Your task to perform on an android device: Go to location settings Image 0: 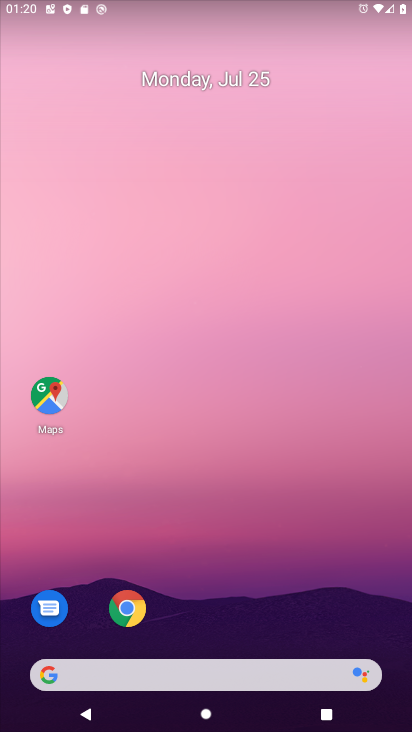
Step 0: drag from (226, 671) to (235, 113)
Your task to perform on an android device: Go to location settings Image 1: 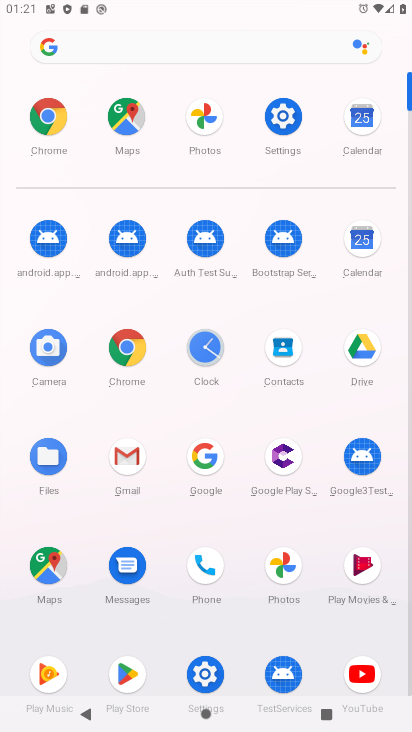
Step 1: click (269, 129)
Your task to perform on an android device: Go to location settings Image 2: 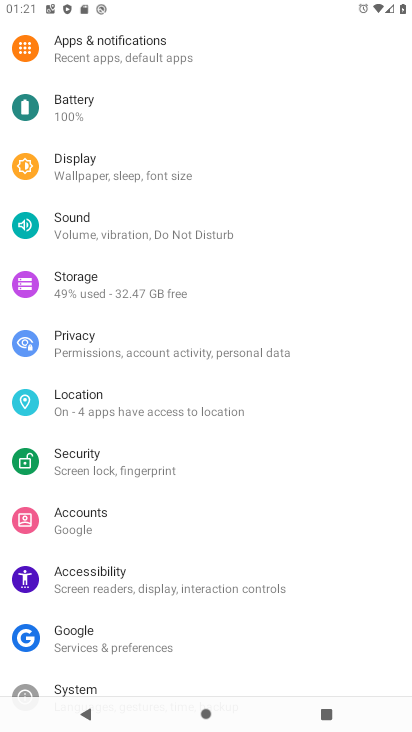
Step 2: click (109, 390)
Your task to perform on an android device: Go to location settings Image 3: 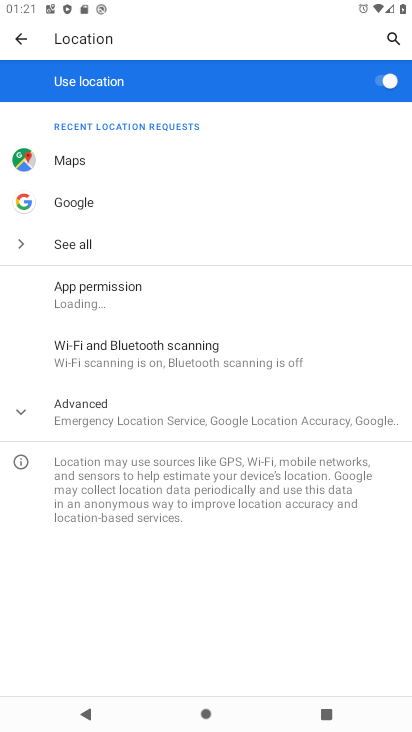
Step 3: click (113, 406)
Your task to perform on an android device: Go to location settings Image 4: 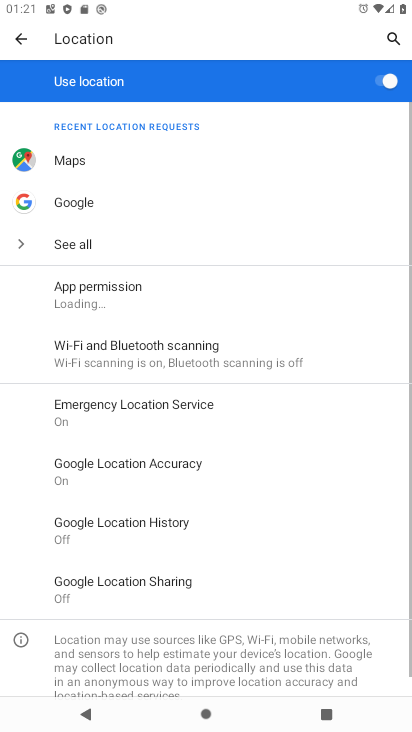
Step 4: task complete